Your task to perform on an android device: Search for sushi restaurants on Maps Image 0: 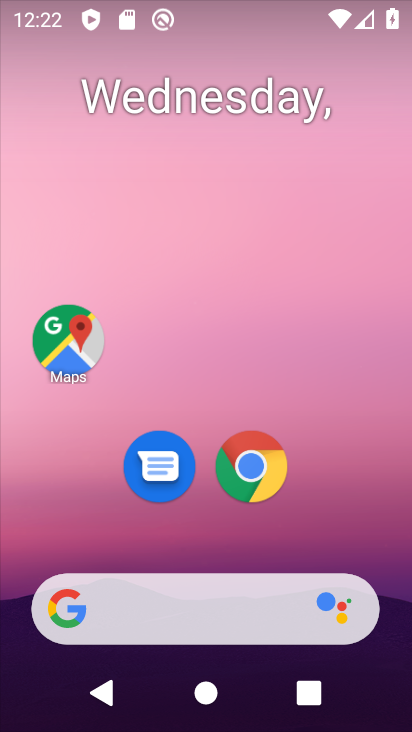
Step 0: click (77, 362)
Your task to perform on an android device: Search for sushi restaurants on Maps Image 1: 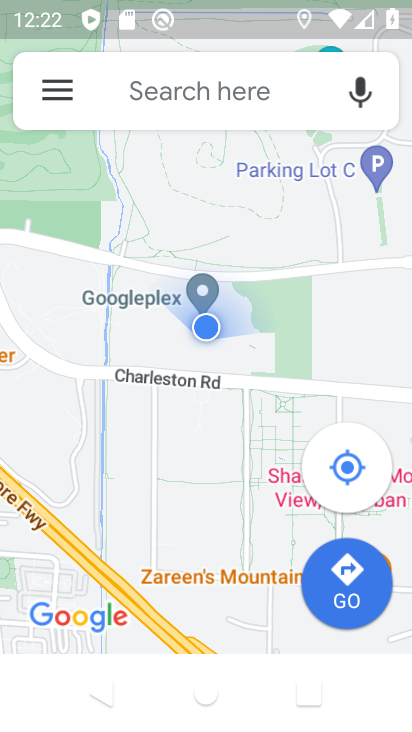
Step 1: click (234, 91)
Your task to perform on an android device: Search for sushi restaurants on Maps Image 2: 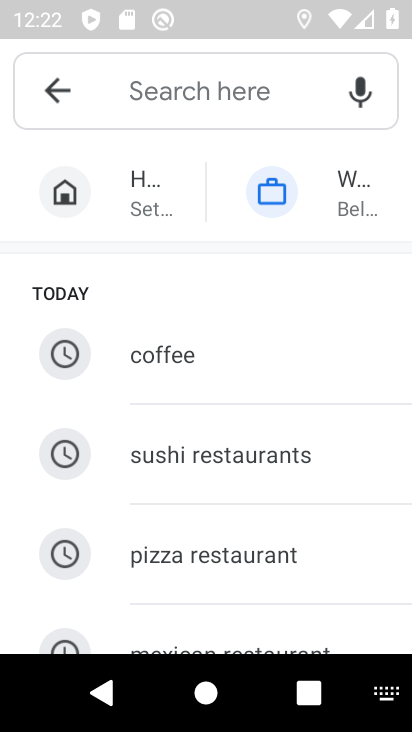
Step 2: click (291, 456)
Your task to perform on an android device: Search for sushi restaurants on Maps Image 3: 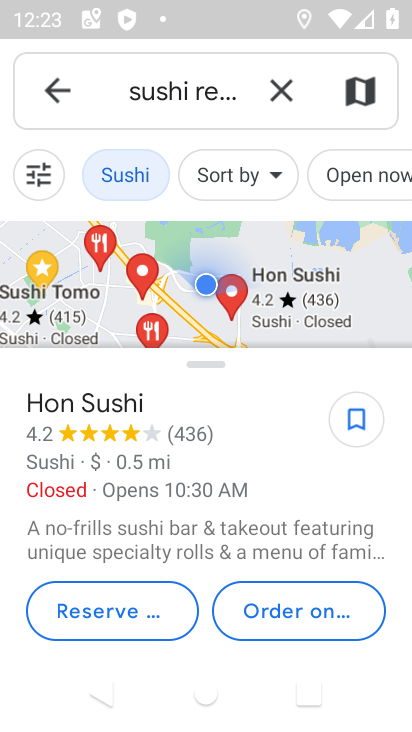
Step 3: task complete